Your task to perform on an android device: Show me popular games on the Play Store Image 0: 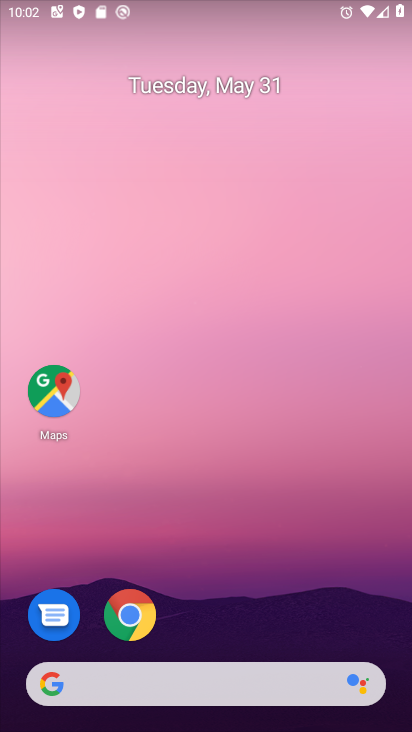
Step 0: drag from (315, 542) to (314, 117)
Your task to perform on an android device: Show me popular games on the Play Store Image 1: 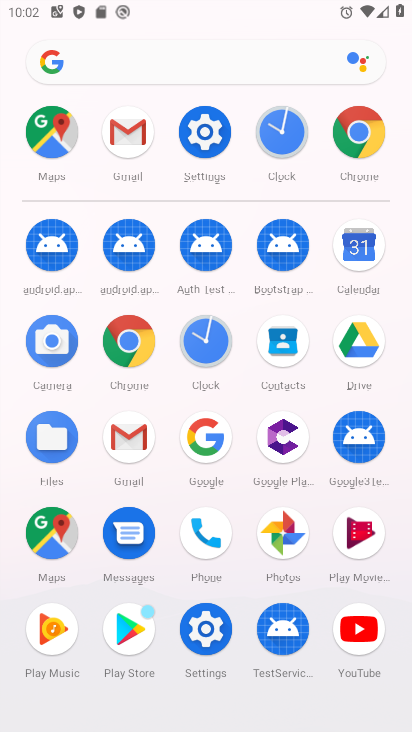
Step 1: click (116, 644)
Your task to perform on an android device: Show me popular games on the Play Store Image 2: 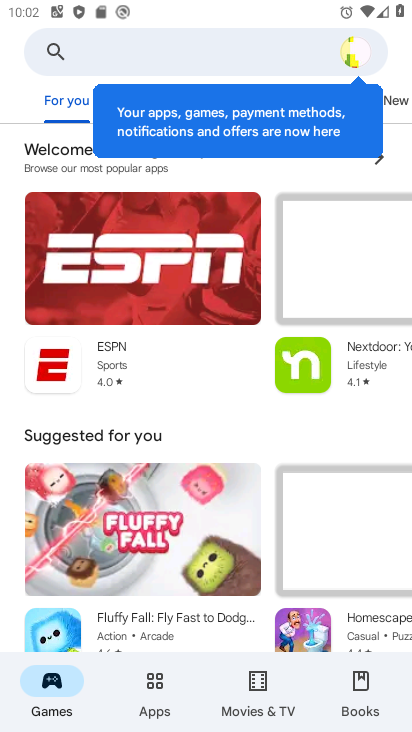
Step 2: click (199, 38)
Your task to perform on an android device: Show me popular games on the Play Store Image 3: 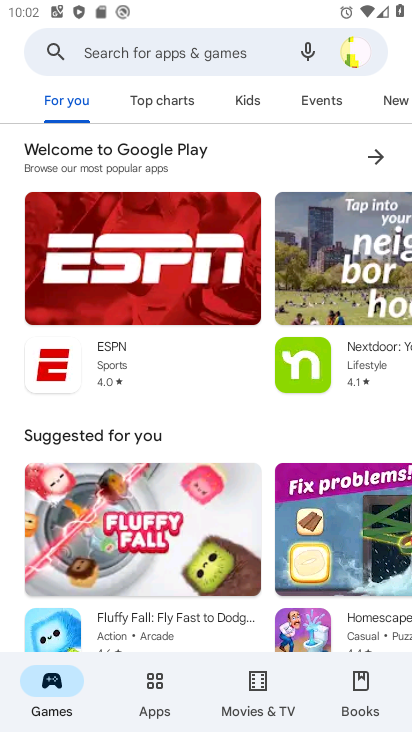
Step 3: click (200, 50)
Your task to perform on an android device: Show me popular games on the Play Store Image 4: 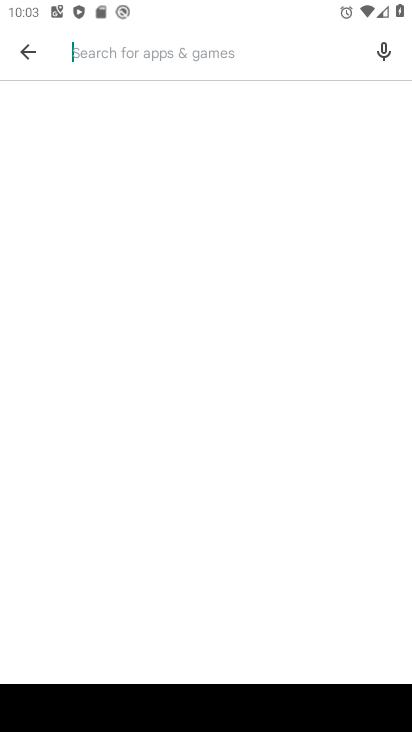
Step 4: type "popular games"
Your task to perform on an android device: Show me popular games on the Play Store Image 5: 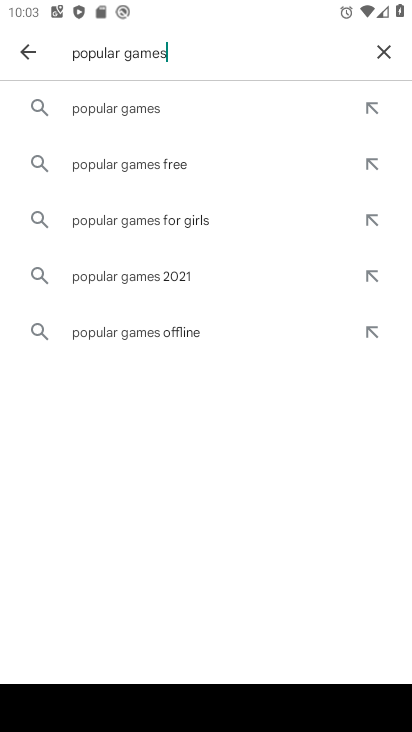
Step 5: click (146, 108)
Your task to perform on an android device: Show me popular games on the Play Store Image 6: 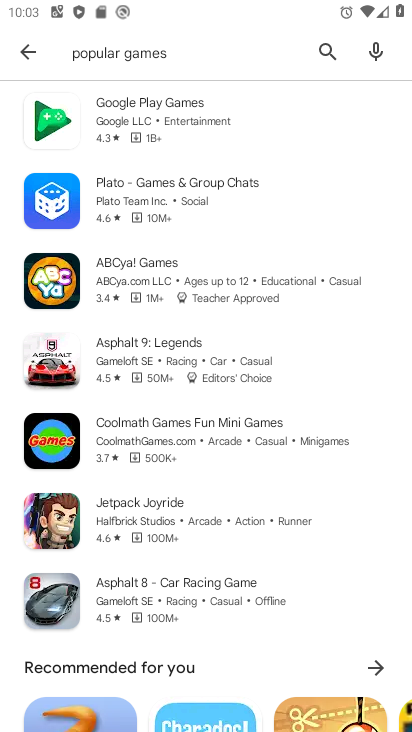
Step 6: task complete